Your task to perform on an android device: Open Chrome and go to the settings page Image 0: 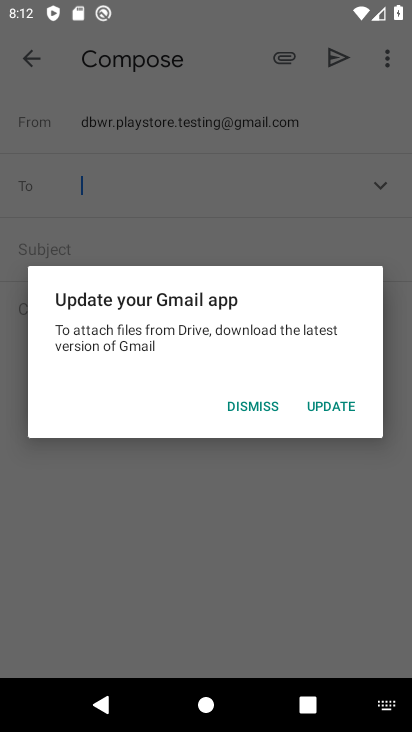
Step 0: press home button
Your task to perform on an android device: Open Chrome and go to the settings page Image 1: 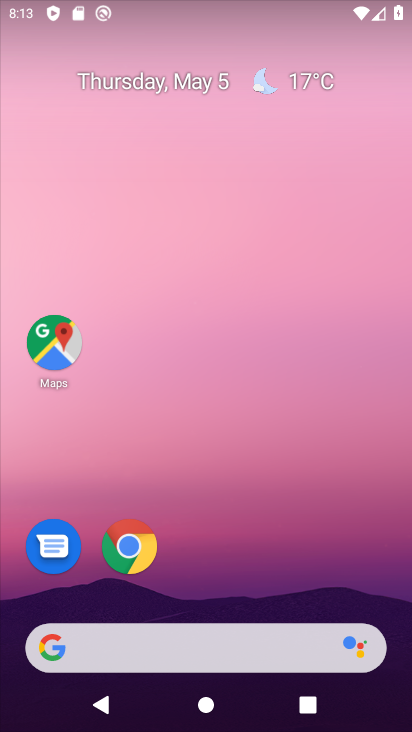
Step 1: drag from (149, 649) to (313, 128)
Your task to perform on an android device: Open Chrome and go to the settings page Image 2: 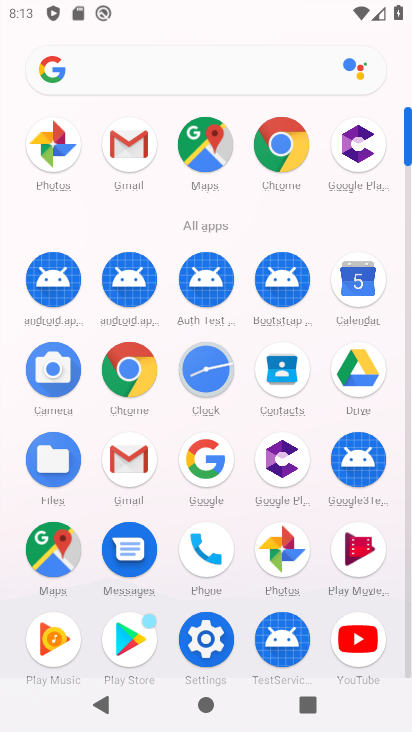
Step 2: click (282, 157)
Your task to perform on an android device: Open Chrome and go to the settings page Image 3: 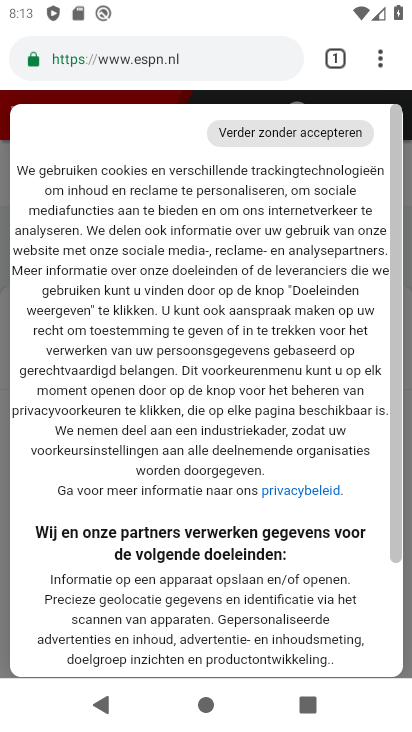
Step 3: click (378, 66)
Your task to perform on an android device: Open Chrome and go to the settings page Image 4: 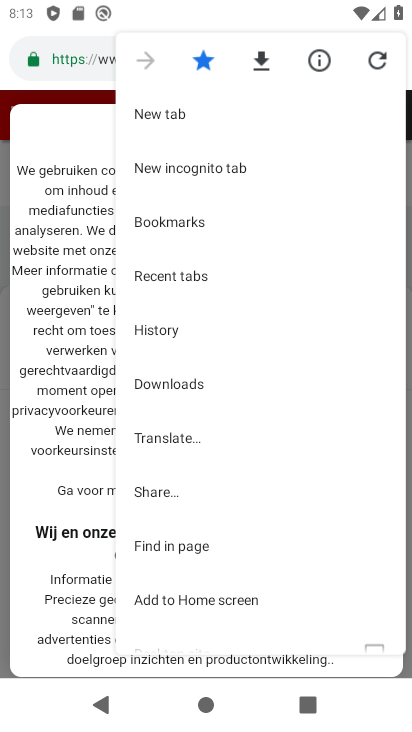
Step 4: drag from (241, 562) to (325, 293)
Your task to perform on an android device: Open Chrome and go to the settings page Image 5: 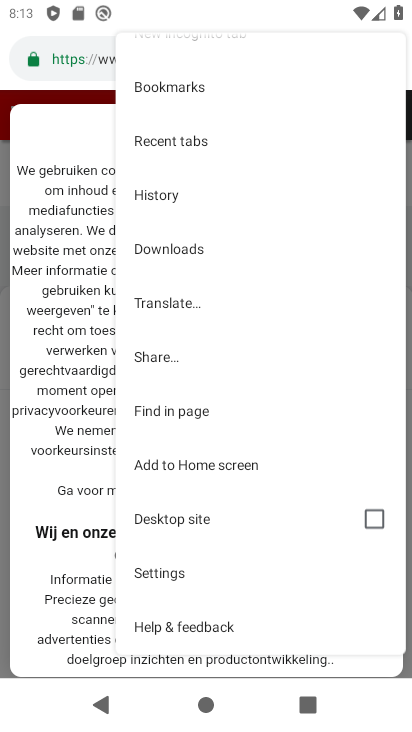
Step 5: click (160, 571)
Your task to perform on an android device: Open Chrome and go to the settings page Image 6: 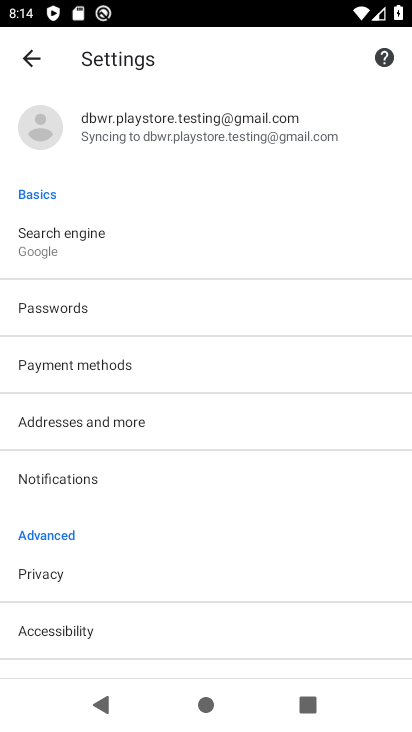
Step 6: task complete